Your task to perform on an android device: turn pop-ups off in chrome Image 0: 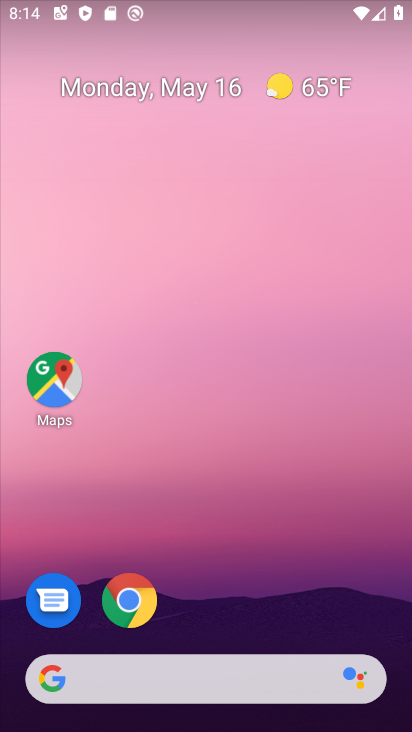
Step 0: click (392, 31)
Your task to perform on an android device: turn pop-ups off in chrome Image 1: 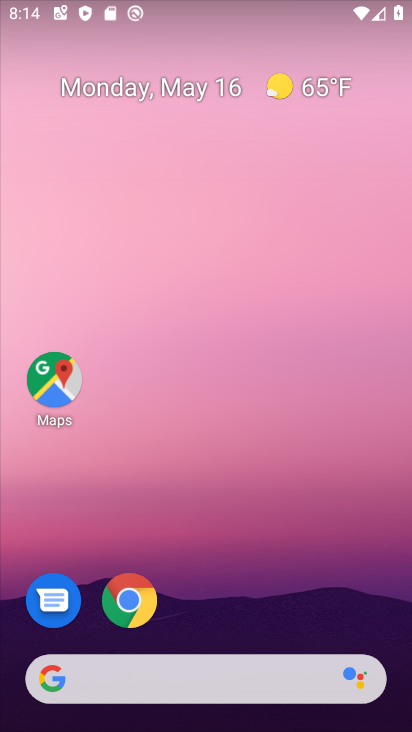
Step 1: drag from (198, 621) to (165, 29)
Your task to perform on an android device: turn pop-ups off in chrome Image 2: 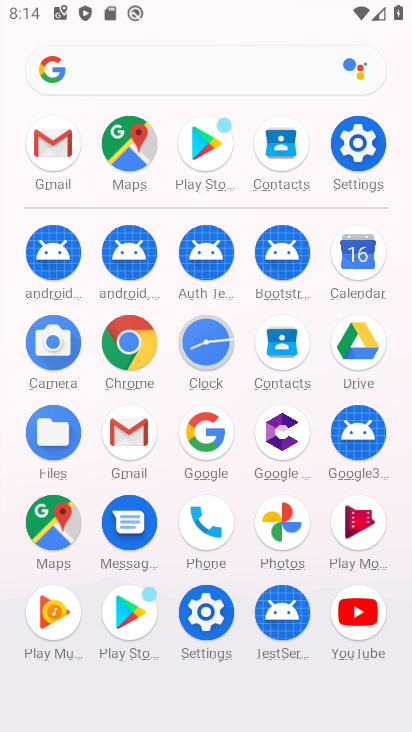
Step 2: click (129, 362)
Your task to perform on an android device: turn pop-ups off in chrome Image 3: 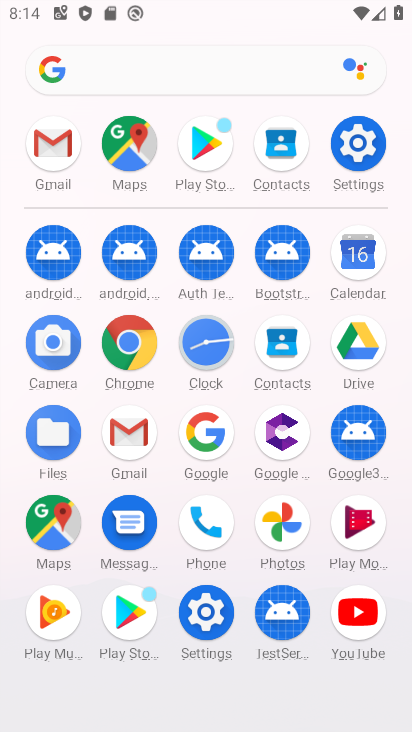
Step 3: click (129, 362)
Your task to perform on an android device: turn pop-ups off in chrome Image 4: 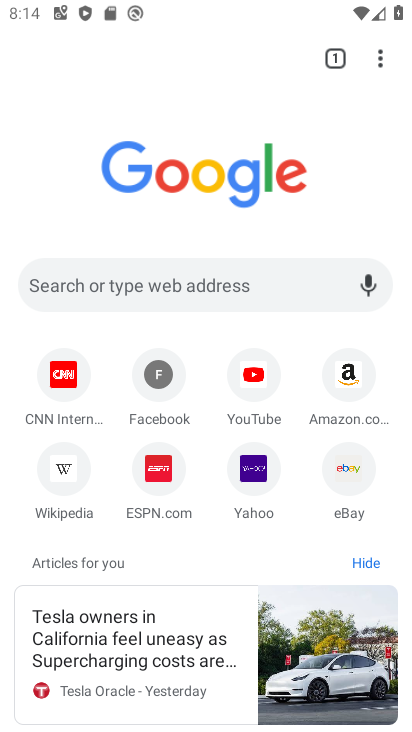
Step 4: click (384, 49)
Your task to perform on an android device: turn pop-ups off in chrome Image 5: 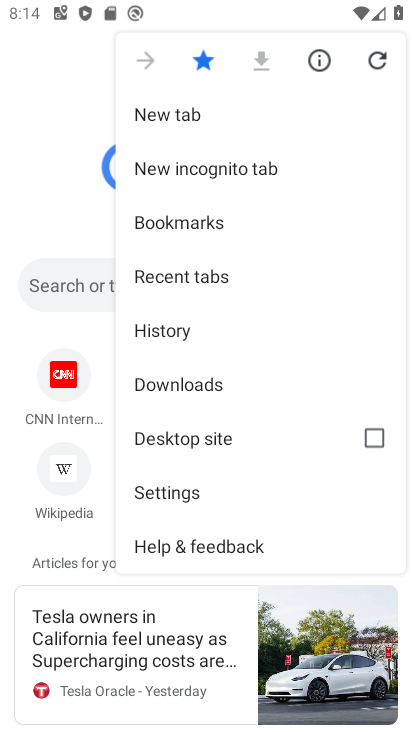
Step 5: drag from (269, 519) to (323, 199)
Your task to perform on an android device: turn pop-ups off in chrome Image 6: 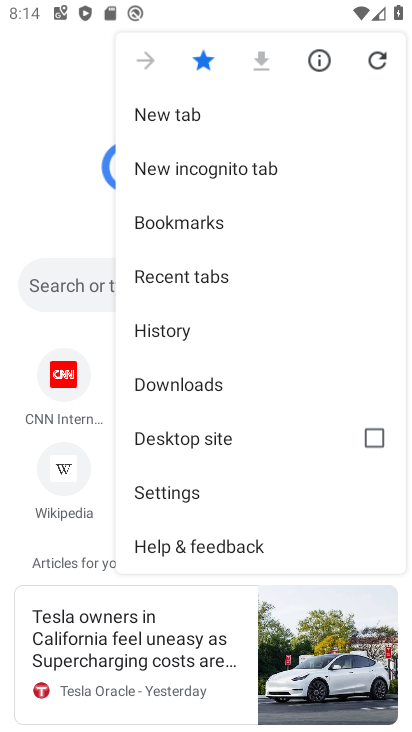
Step 6: click (191, 492)
Your task to perform on an android device: turn pop-ups off in chrome Image 7: 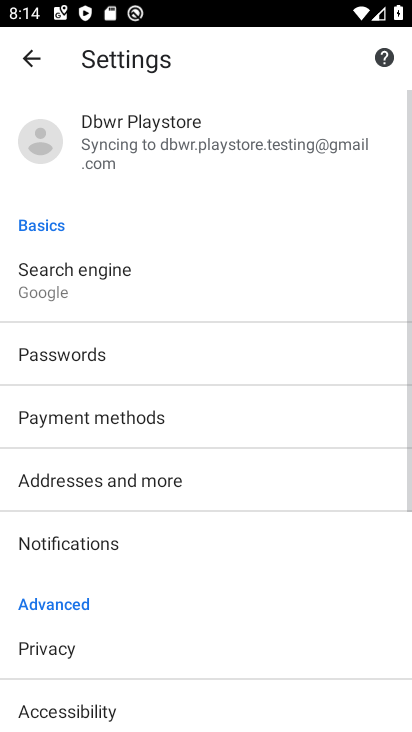
Step 7: drag from (243, 632) to (338, 224)
Your task to perform on an android device: turn pop-ups off in chrome Image 8: 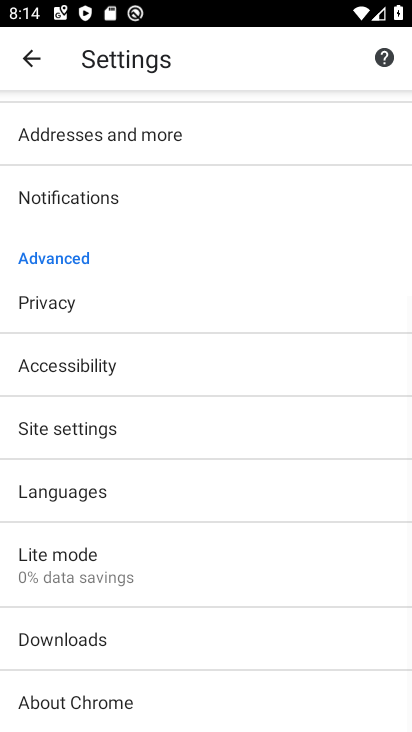
Step 8: click (145, 437)
Your task to perform on an android device: turn pop-ups off in chrome Image 9: 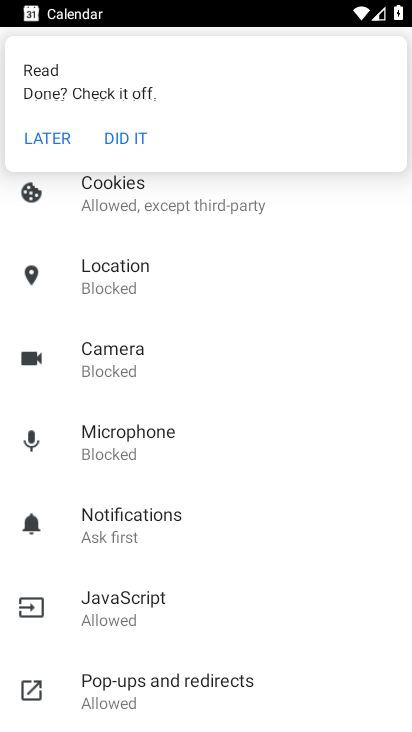
Step 9: click (203, 682)
Your task to perform on an android device: turn pop-ups off in chrome Image 10: 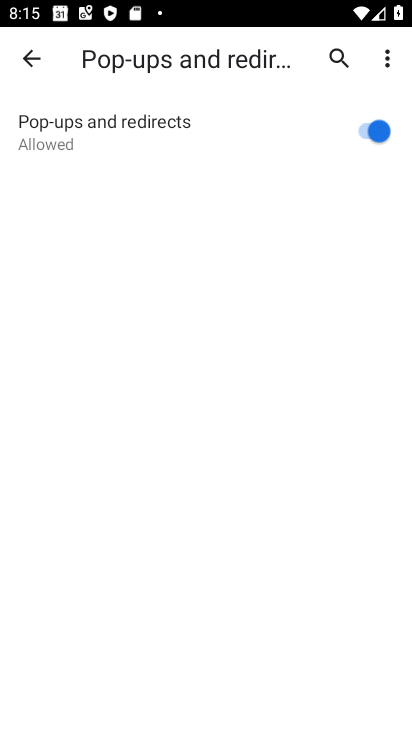
Step 10: click (356, 133)
Your task to perform on an android device: turn pop-ups off in chrome Image 11: 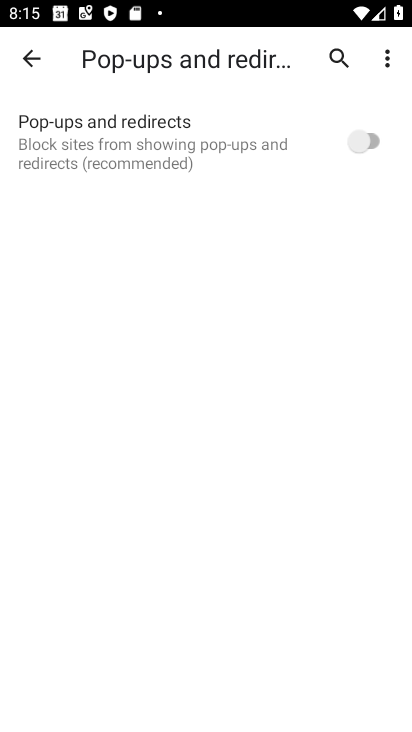
Step 11: task complete